Your task to perform on an android device: turn off smart reply in the gmail app Image 0: 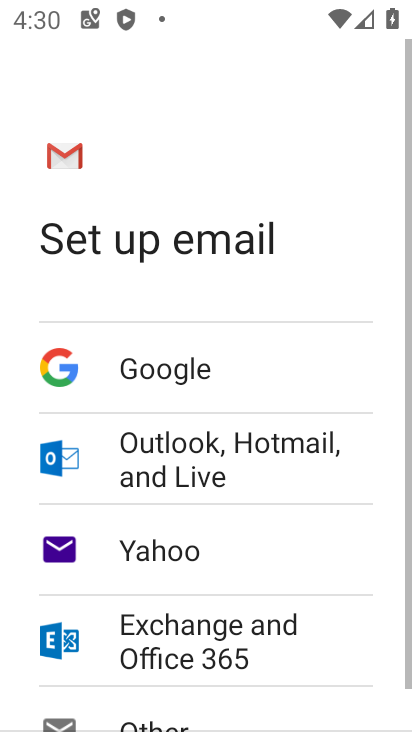
Step 0: press home button
Your task to perform on an android device: turn off smart reply in the gmail app Image 1: 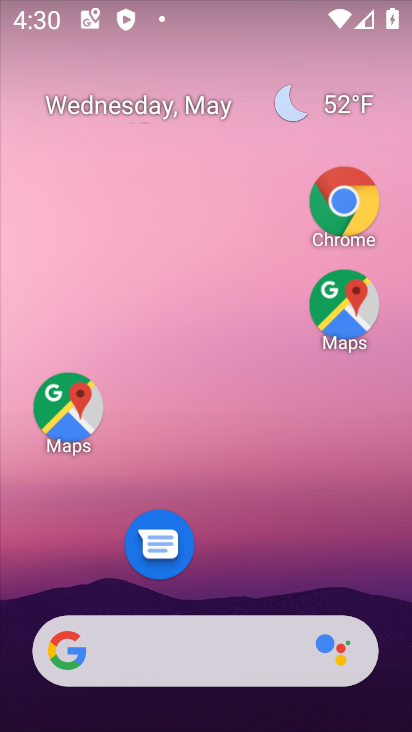
Step 1: drag from (246, 555) to (321, 113)
Your task to perform on an android device: turn off smart reply in the gmail app Image 2: 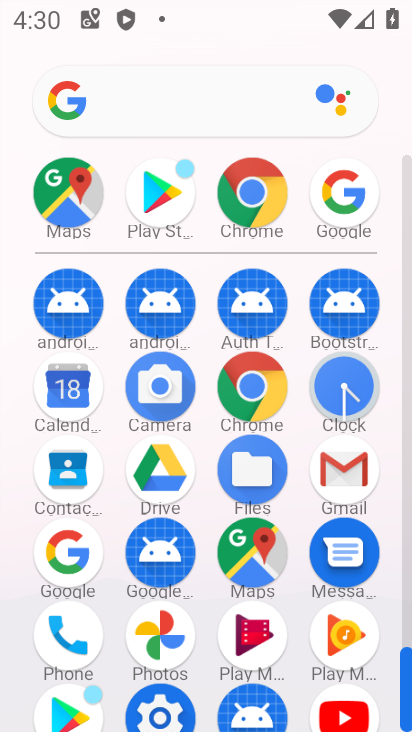
Step 2: click (340, 466)
Your task to perform on an android device: turn off smart reply in the gmail app Image 3: 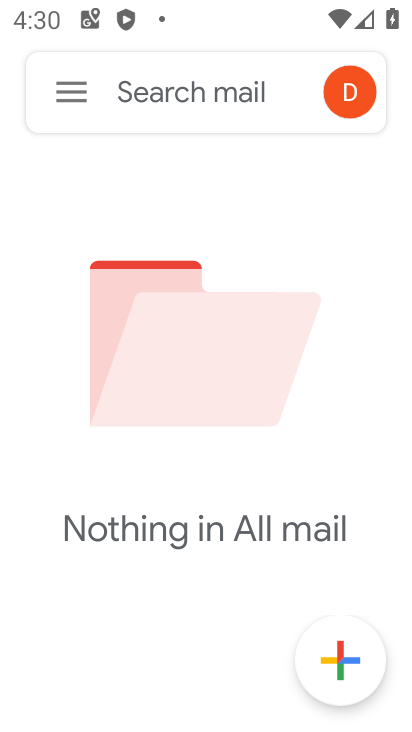
Step 3: click (73, 97)
Your task to perform on an android device: turn off smart reply in the gmail app Image 4: 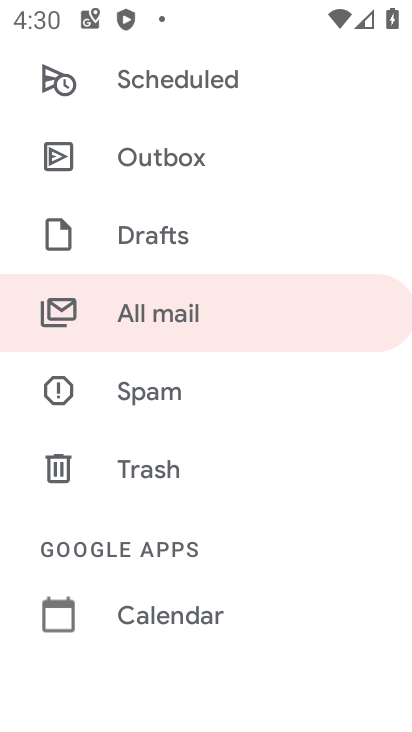
Step 4: drag from (155, 566) to (193, 301)
Your task to perform on an android device: turn off smart reply in the gmail app Image 5: 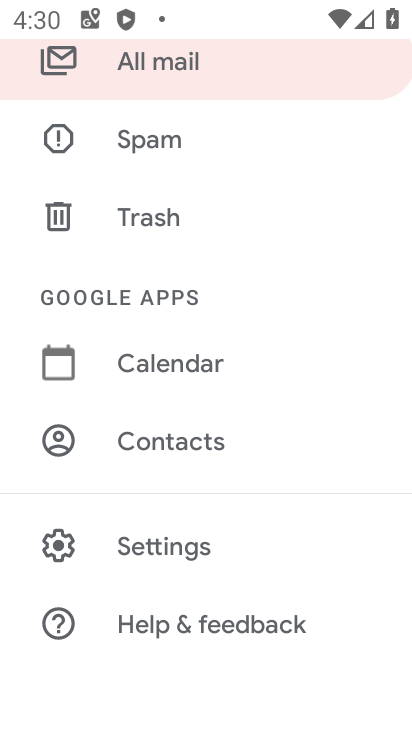
Step 5: click (143, 552)
Your task to perform on an android device: turn off smart reply in the gmail app Image 6: 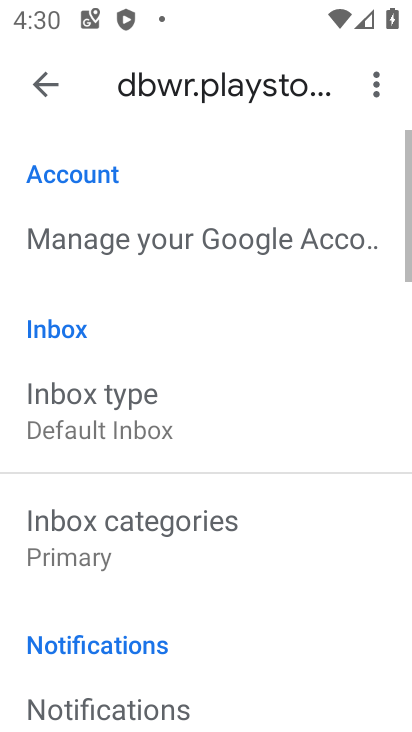
Step 6: drag from (193, 594) to (229, 279)
Your task to perform on an android device: turn off smart reply in the gmail app Image 7: 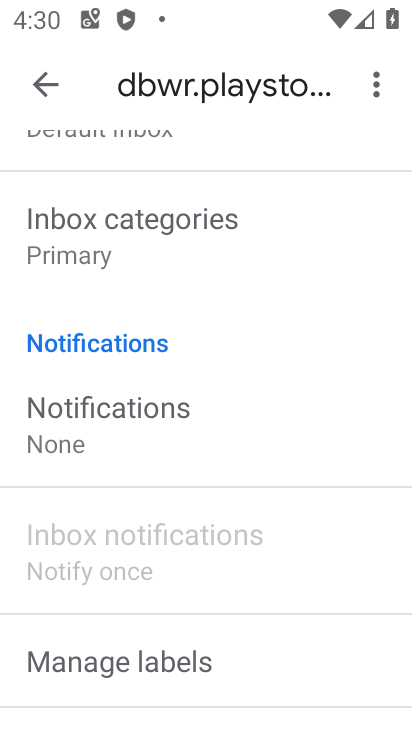
Step 7: drag from (172, 581) to (172, 307)
Your task to perform on an android device: turn off smart reply in the gmail app Image 8: 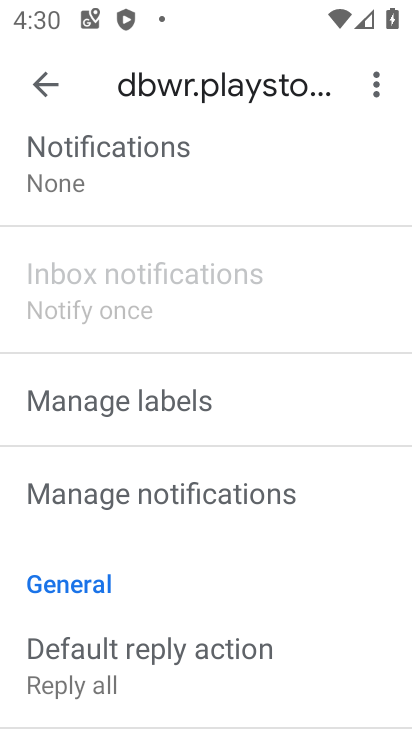
Step 8: drag from (130, 638) to (206, 275)
Your task to perform on an android device: turn off smart reply in the gmail app Image 9: 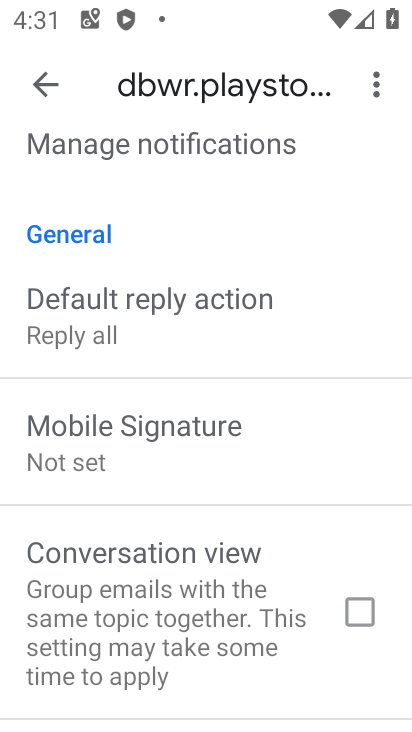
Step 9: drag from (142, 611) to (235, 289)
Your task to perform on an android device: turn off smart reply in the gmail app Image 10: 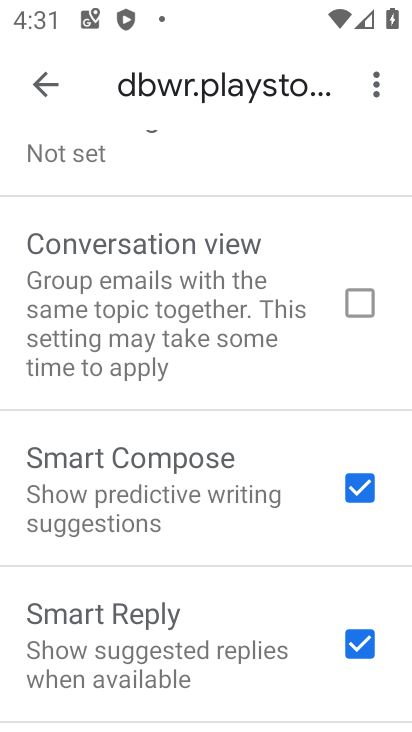
Step 10: click (358, 644)
Your task to perform on an android device: turn off smart reply in the gmail app Image 11: 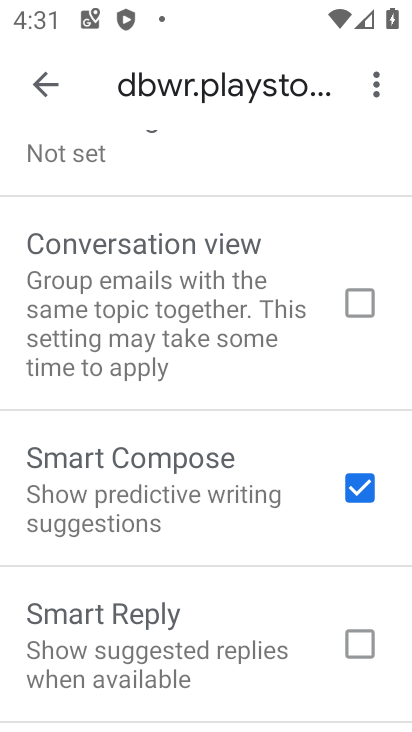
Step 11: task complete